Your task to perform on an android device: Go to sound settings Image 0: 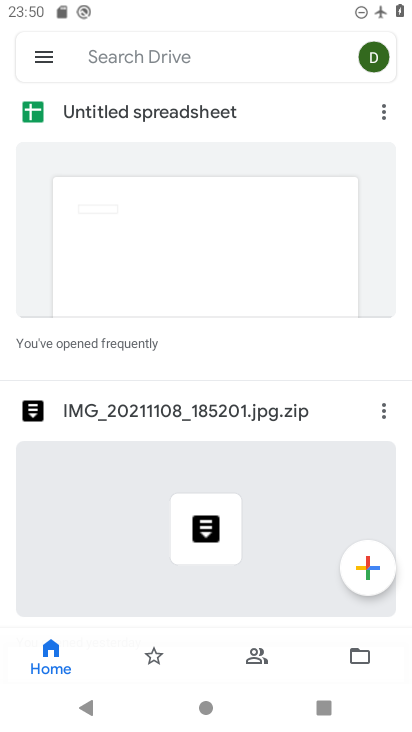
Step 0: press home button
Your task to perform on an android device: Go to sound settings Image 1: 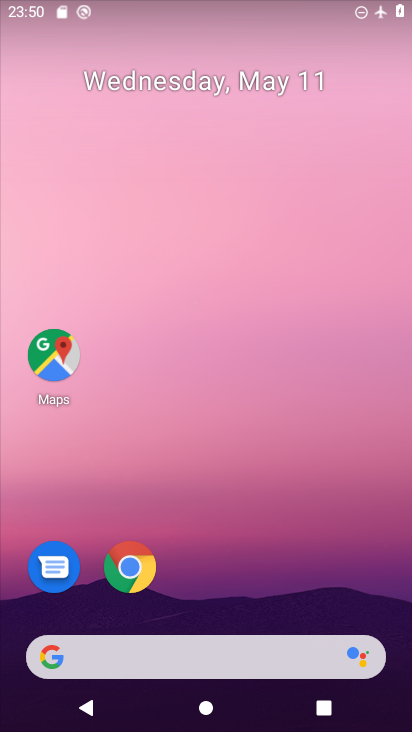
Step 1: drag from (272, 485) to (290, 57)
Your task to perform on an android device: Go to sound settings Image 2: 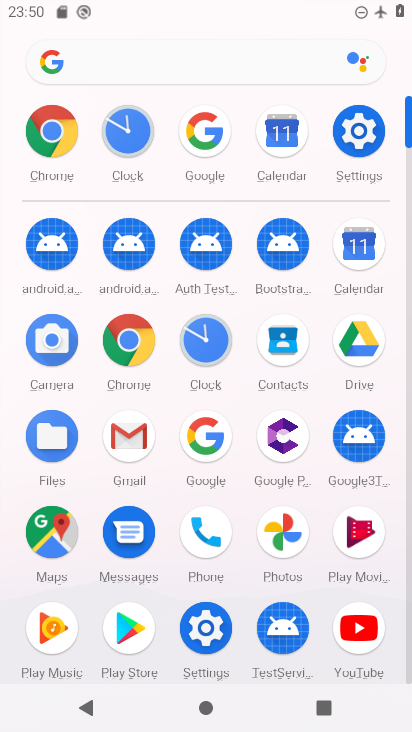
Step 2: click (360, 126)
Your task to perform on an android device: Go to sound settings Image 3: 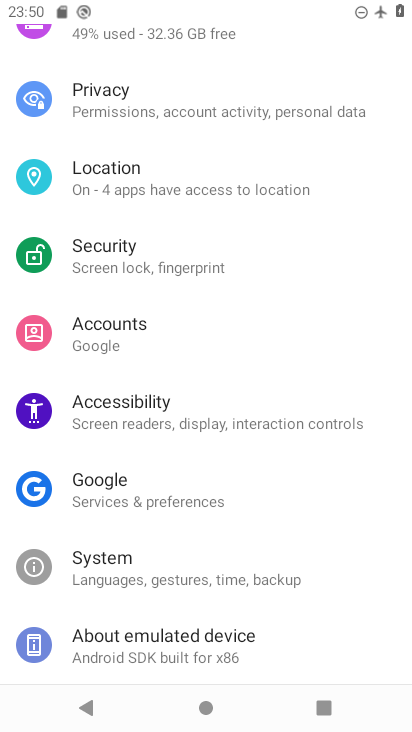
Step 3: drag from (256, 114) to (221, 514)
Your task to perform on an android device: Go to sound settings Image 4: 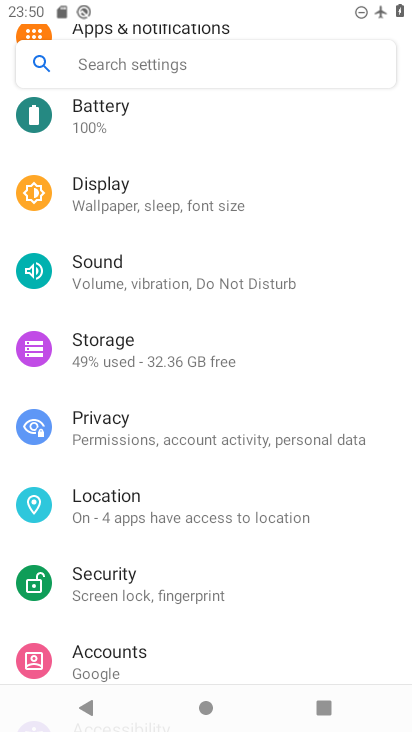
Step 4: click (147, 273)
Your task to perform on an android device: Go to sound settings Image 5: 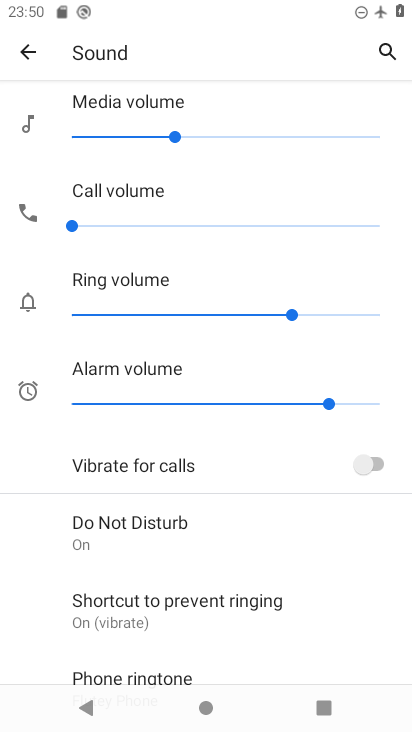
Step 5: task complete